Your task to perform on an android device: turn off smart reply in the gmail app Image 0: 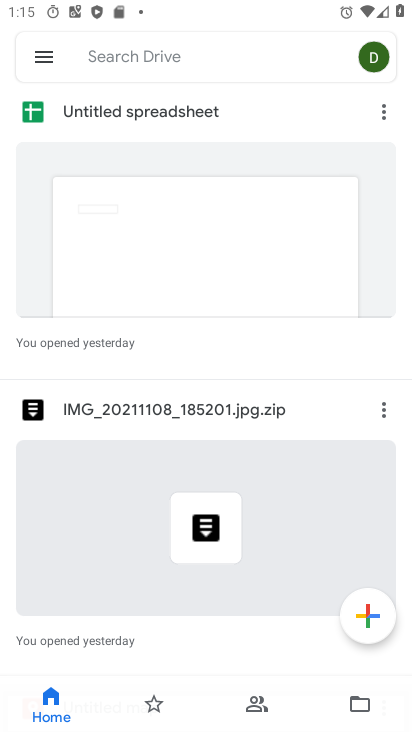
Step 0: press home button
Your task to perform on an android device: turn off smart reply in the gmail app Image 1: 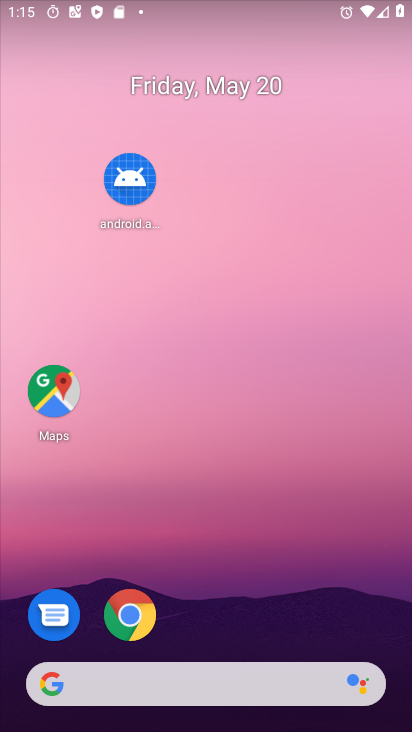
Step 1: drag from (360, 495) to (238, 161)
Your task to perform on an android device: turn off smart reply in the gmail app Image 2: 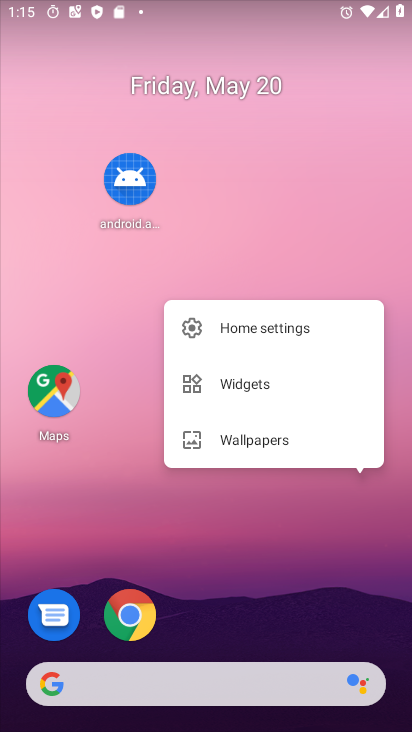
Step 2: drag from (387, 601) to (279, 165)
Your task to perform on an android device: turn off smart reply in the gmail app Image 3: 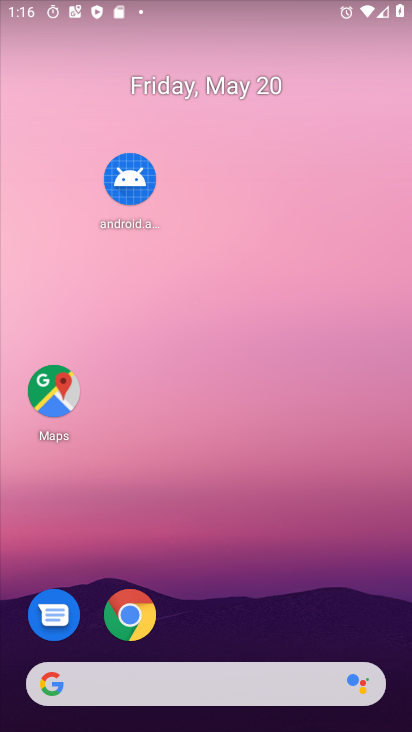
Step 3: drag from (375, 603) to (308, 212)
Your task to perform on an android device: turn off smart reply in the gmail app Image 4: 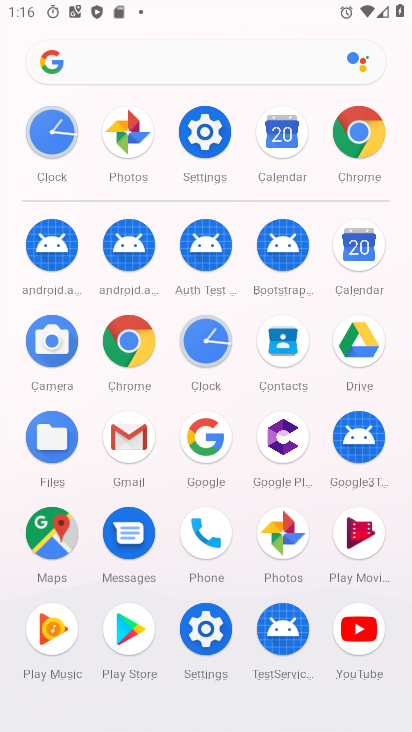
Step 4: click (135, 443)
Your task to perform on an android device: turn off smart reply in the gmail app Image 5: 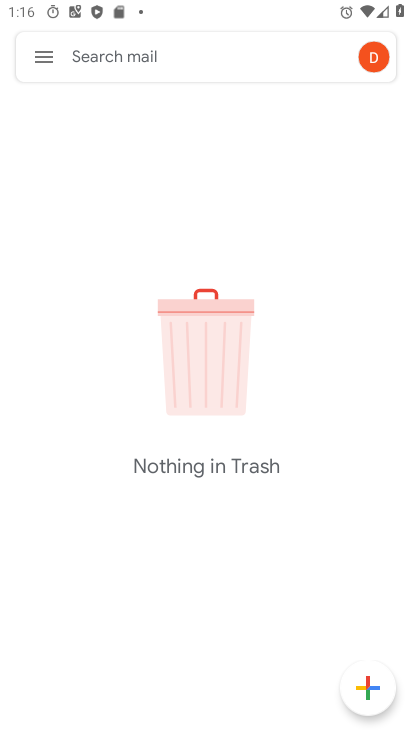
Step 5: click (38, 70)
Your task to perform on an android device: turn off smart reply in the gmail app Image 6: 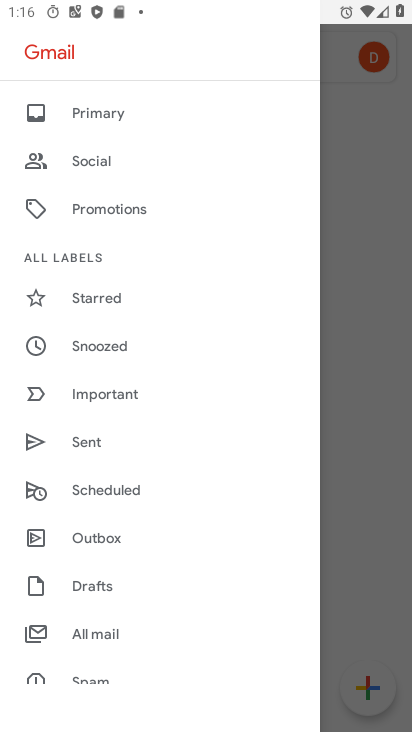
Step 6: drag from (224, 641) to (155, 297)
Your task to perform on an android device: turn off smart reply in the gmail app Image 7: 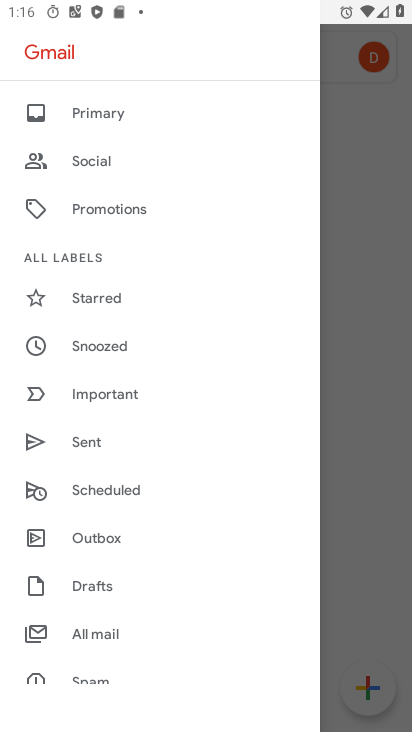
Step 7: drag from (191, 597) to (182, 274)
Your task to perform on an android device: turn off smart reply in the gmail app Image 8: 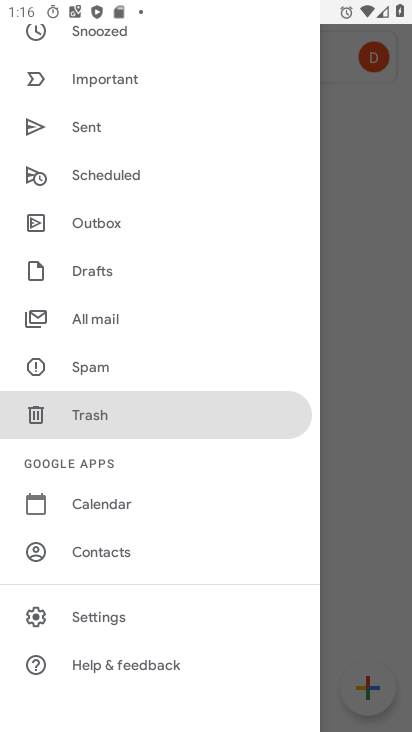
Step 8: click (99, 625)
Your task to perform on an android device: turn off smart reply in the gmail app Image 9: 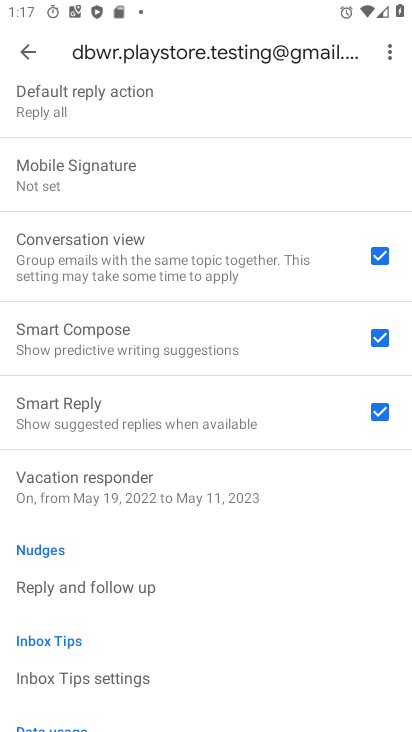
Step 9: click (377, 413)
Your task to perform on an android device: turn off smart reply in the gmail app Image 10: 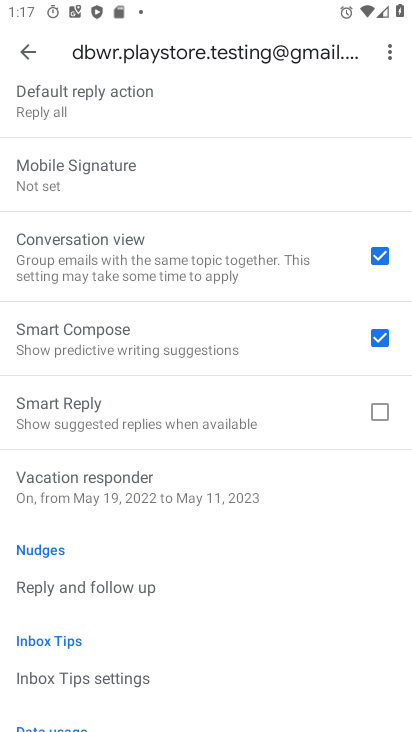
Step 10: task complete